Your task to perform on an android device: When is my next appointment? Image 0: 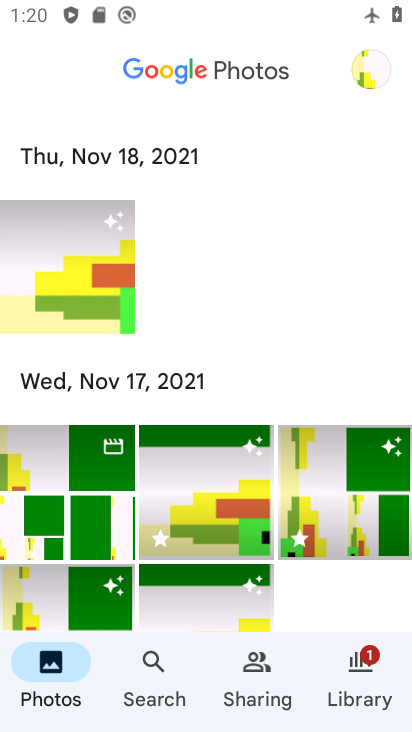
Step 0: press home button
Your task to perform on an android device: When is my next appointment? Image 1: 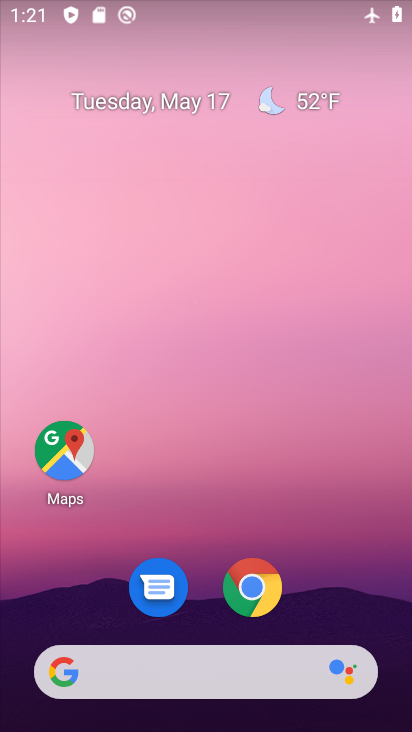
Step 1: drag from (312, 584) to (258, 25)
Your task to perform on an android device: When is my next appointment? Image 2: 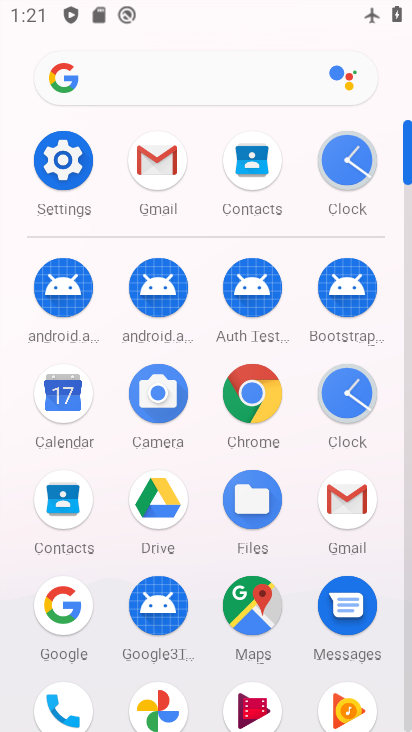
Step 2: click (67, 441)
Your task to perform on an android device: When is my next appointment? Image 3: 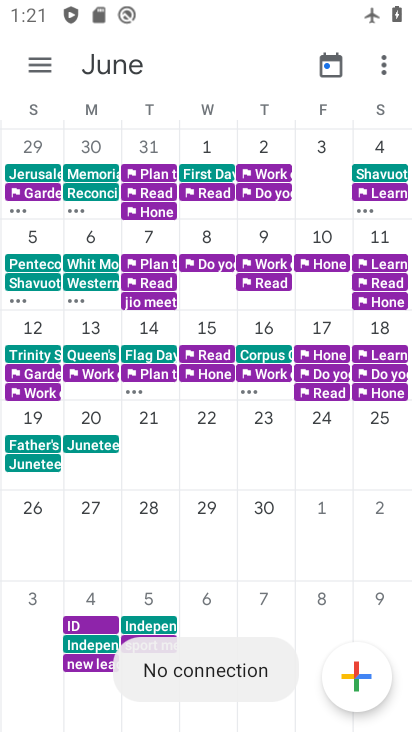
Step 3: task complete